Your task to perform on an android device: Search for Italian restaurants on Maps Image 0: 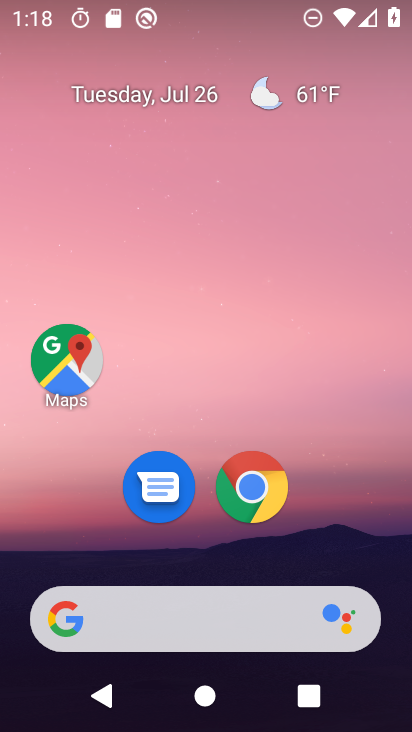
Step 0: click (62, 375)
Your task to perform on an android device: Search for Italian restaurants on Maps Image 1: 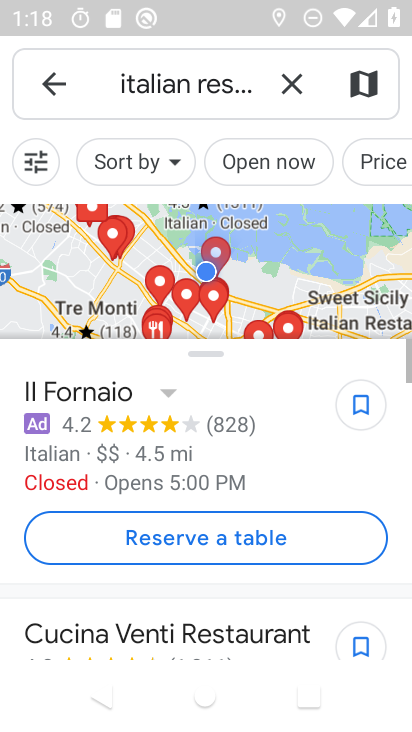
Step 1: click (283, 80)
Your task to perform on an android device: Search for Italian restaurants on Maps Image 2: 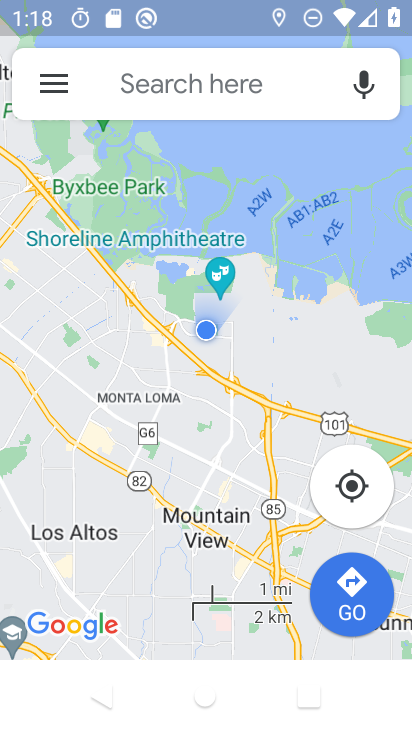
Step 2: click (181, 80)
Your task to perform on an android device: Search for Italian restaurants on Maps Image 3: 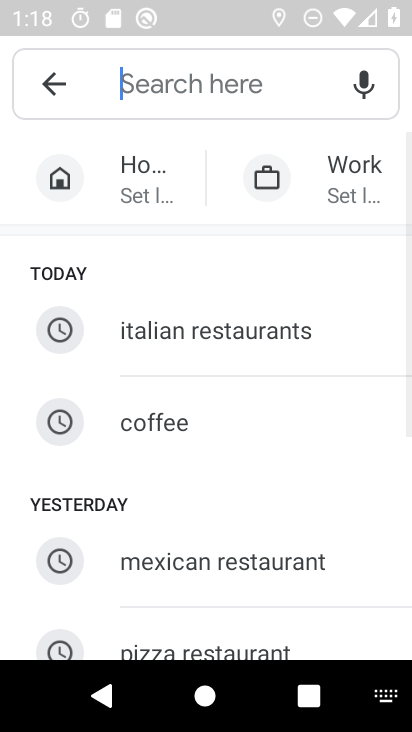
Step 3: click (148, 332)
Your task to perform on an android device: Search for Italian restaurants on Maps Image 4: 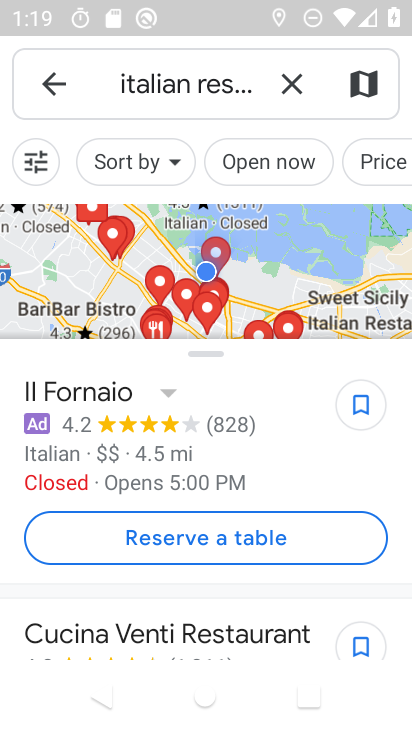
Step 4: task complete